Your task to perform on an android device: Add jbl flip 4 to the cart on costco Image 0: 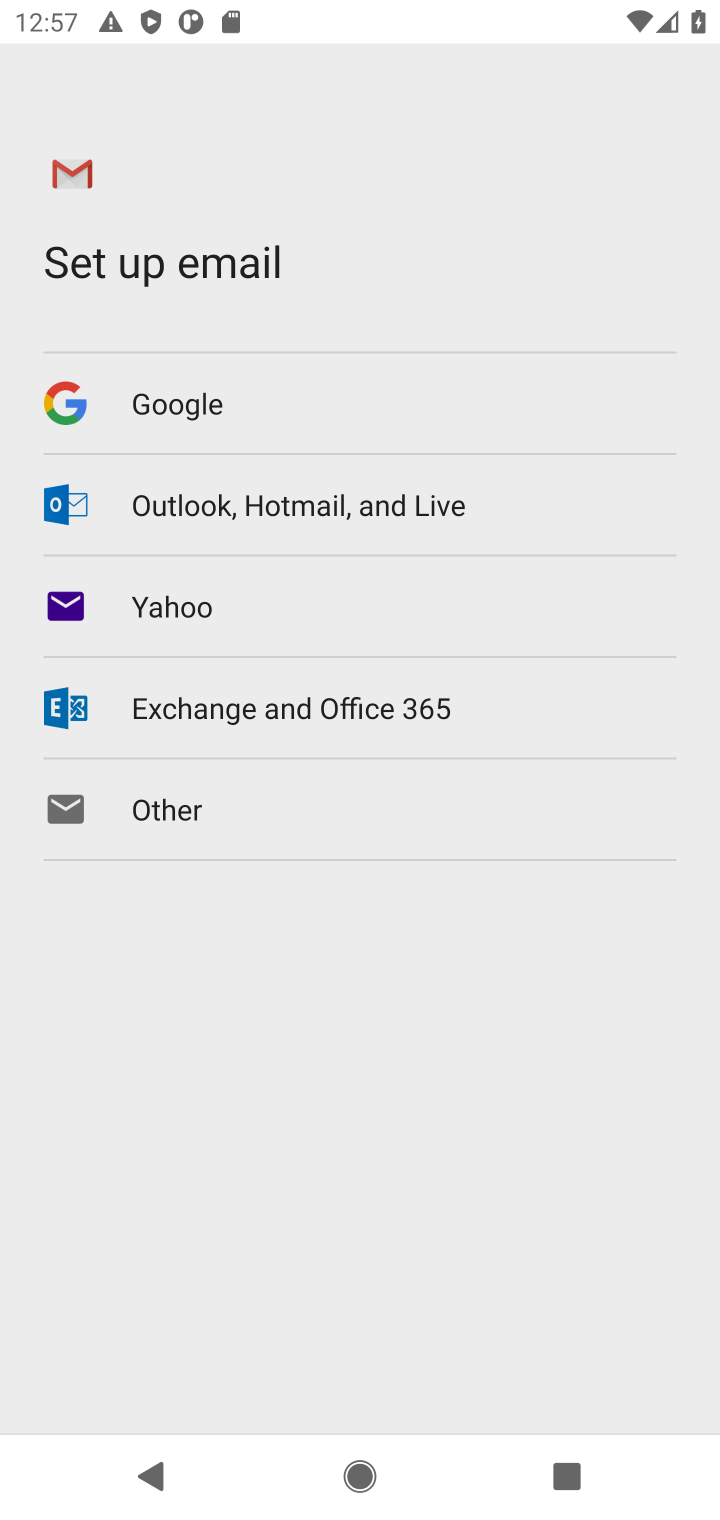
Step 0: task complete